Your task to perform on an android device: Open a new incognito window in the chrome app Image 0: 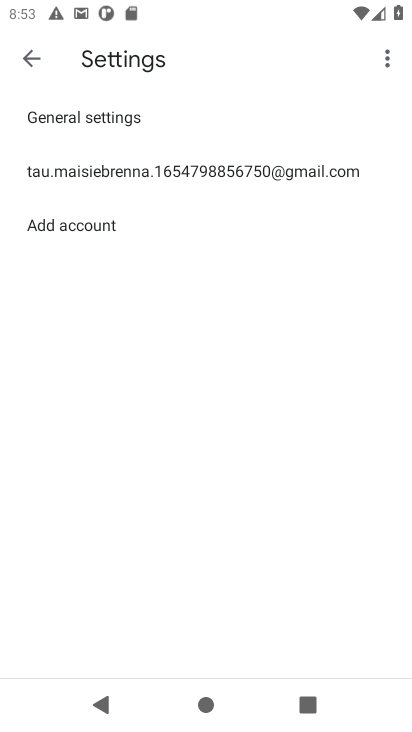
Step 0: press home button
Your task to perform on an android device: Open a new incognito window in the chrome app Image 1: 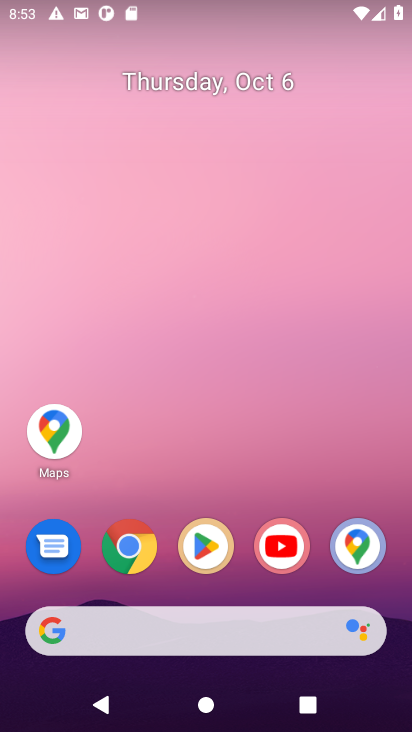
Step 1: click (128, 550)
Your task to perform on an android device: Open a new incognito window in the chrome app Image 2: 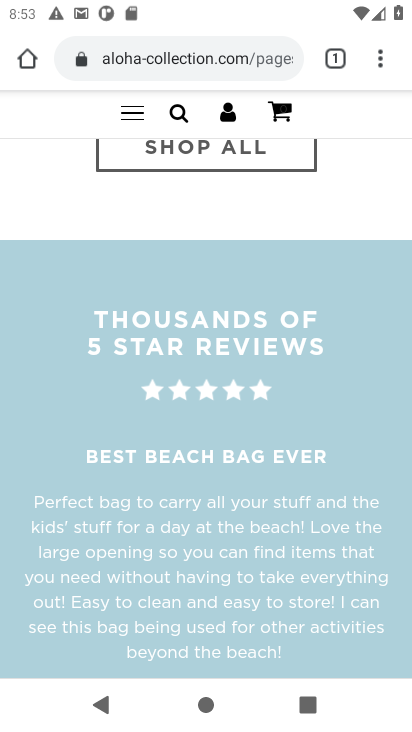
Step 2: click (207, 38)
Your task to perform on an android device: Open a new incognito window in the chrome app Image 3: 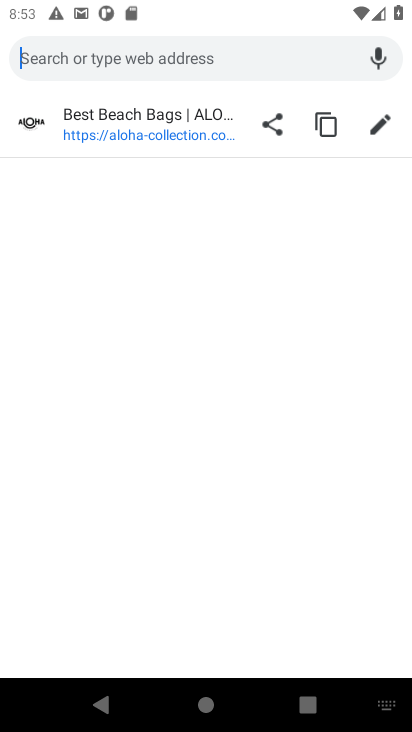
Step 3: press back button
Your task to perform on an android device: Open a new incognito window in the chrome app Image 4: 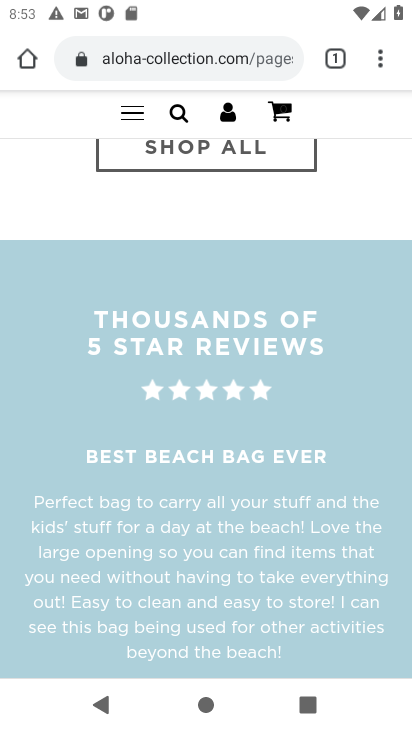
Step 4: click (379, 64)
Your task to perform on an android device: Open a new incognito window in the chrome app Image 5: 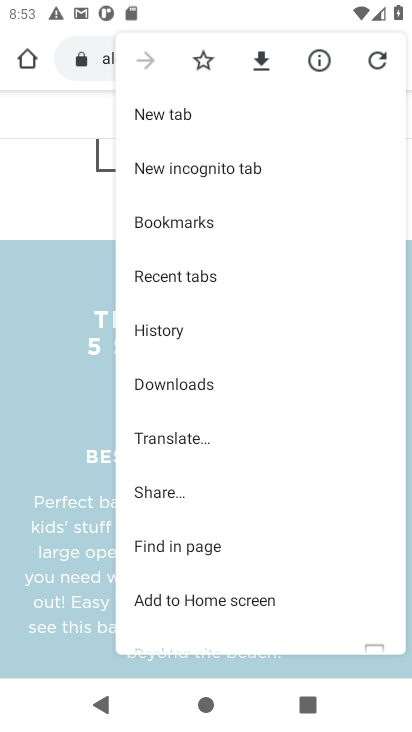
Step 5: click (183, 168)
Your task to perform on an android device: Open a new incognito window in the chrome app Image 6: 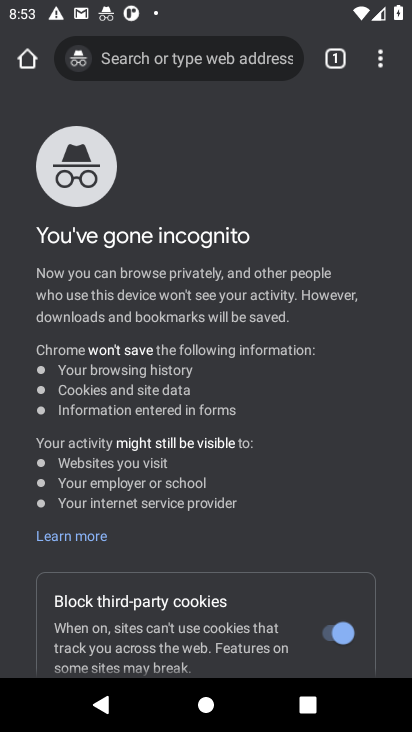
Step 6: task complete